Your task to perform on an android device: clear history in the chrome app Image 0: 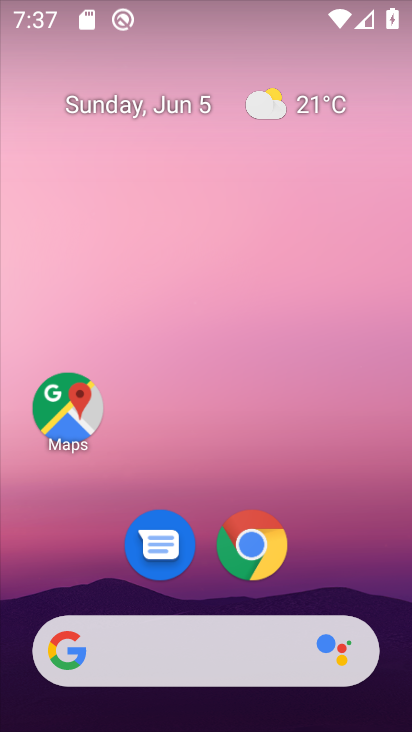
Step 0: drag from (216, 634) to (224, 225)
Your task to perform on an android device: clear history in the chrome app Image 1: 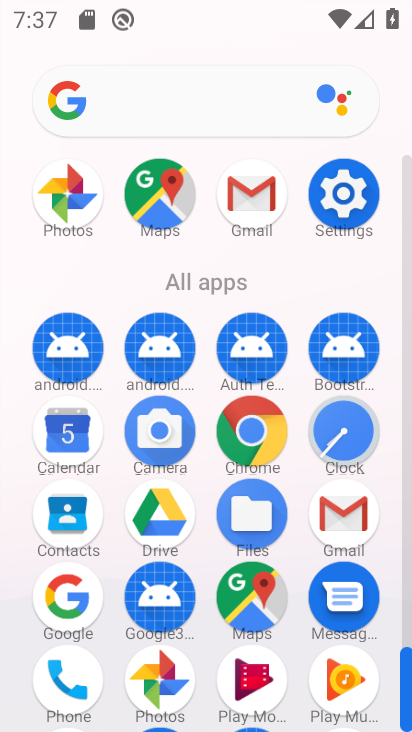
Step 1: drag from (256, 474) to (273, 275)
Your task to perform on an android device: clear history in the chrome app Image 2: 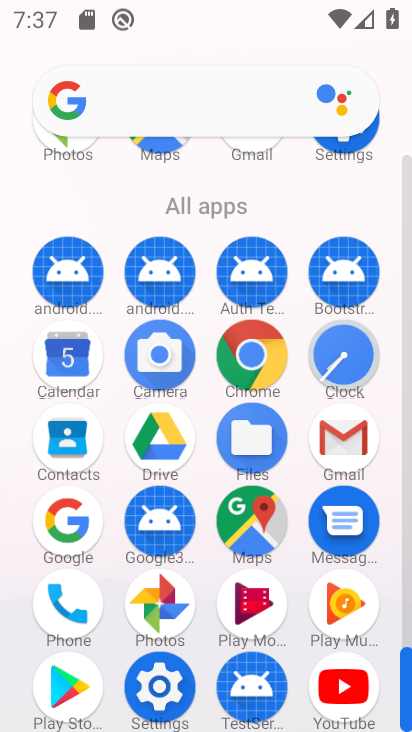
Step 2: click (262, 367)
Your task to perform on an android device: clear history in the chrome app Image 3: 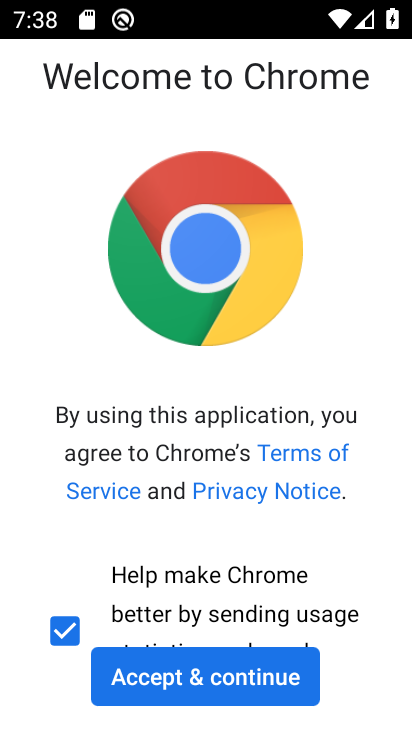
Step 3: click (234, 667)
Your task to perform on an android device: clear history in the chrome app Image 4: 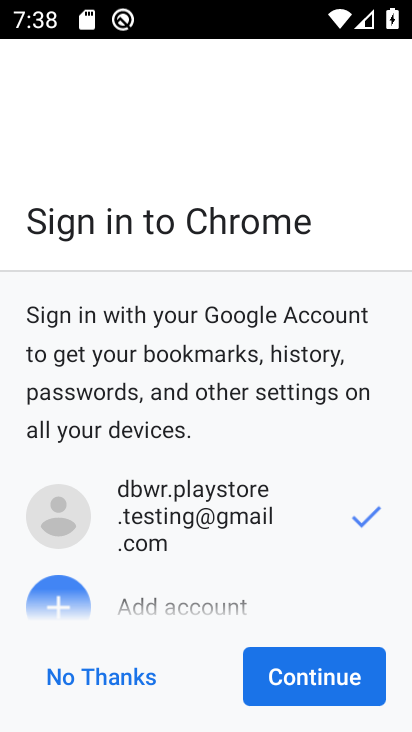
Step 4: click (326, 694)
Your task to perform on an android device: clear history in the chrome app Image 5: 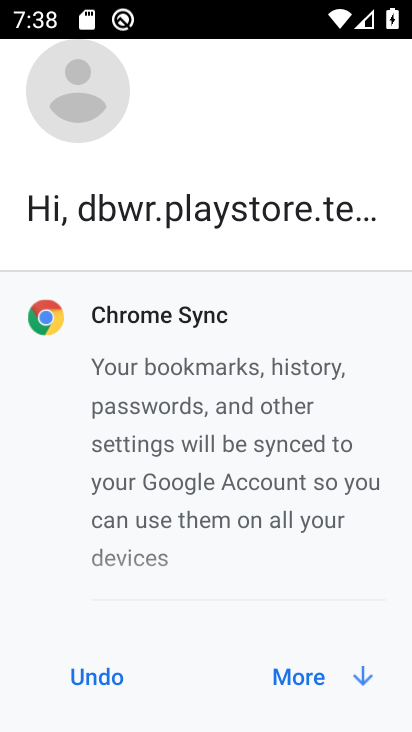
Step 5: click (326, 678)
Your task to perform on an android device: clear history in the chrome app Image 6: 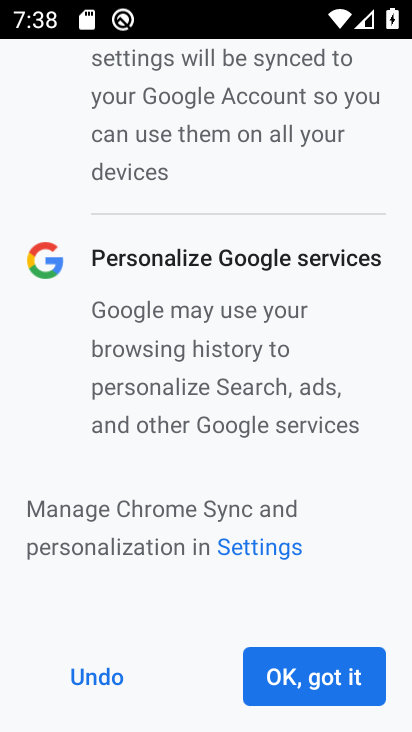
Step 6: click (362, 684)
Your task to perform on an android device: clear history in the chrome app Image 7: 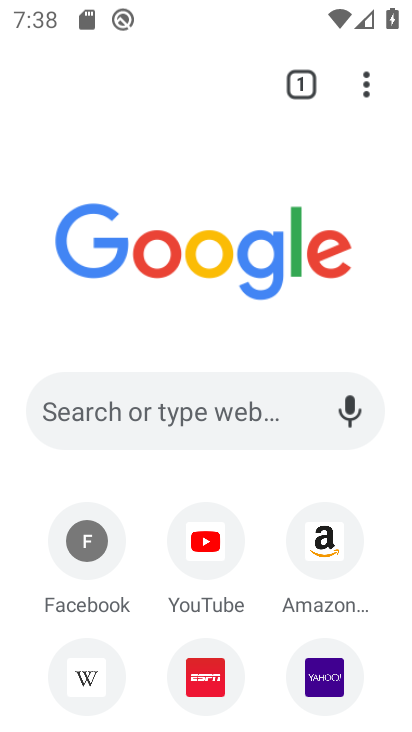
Step 7: click (371, 95)
Your task to perform on an android device: clear history in the chrome app Image 8: 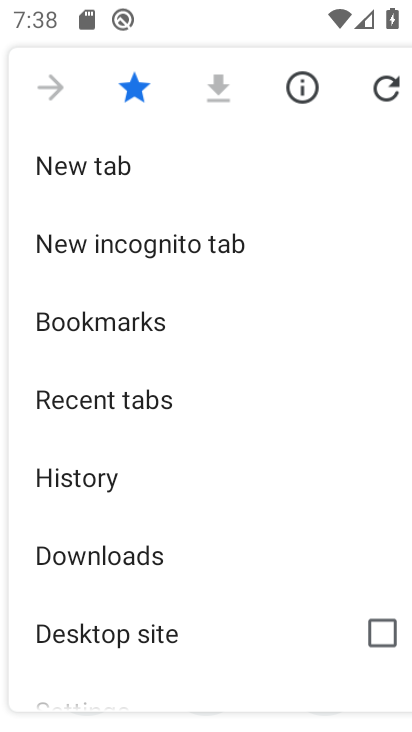
Step 8: click (125, 474)
Your task to perform on an android device: clear history in the chrome app Image 9: 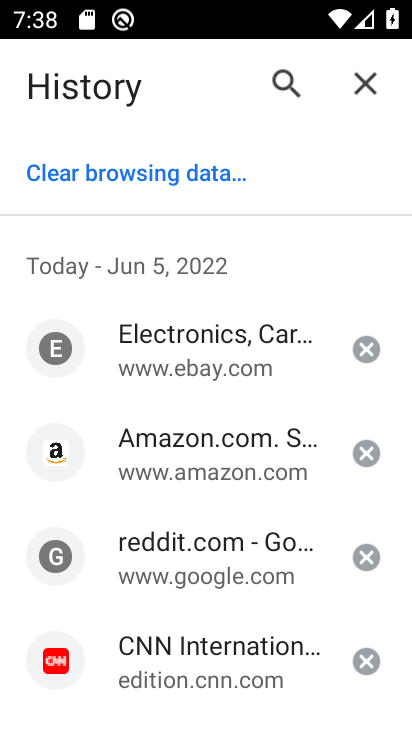
Step 9: click (82, 175)
Your task to perform on an android device: clear history in the chrome app Image 10: 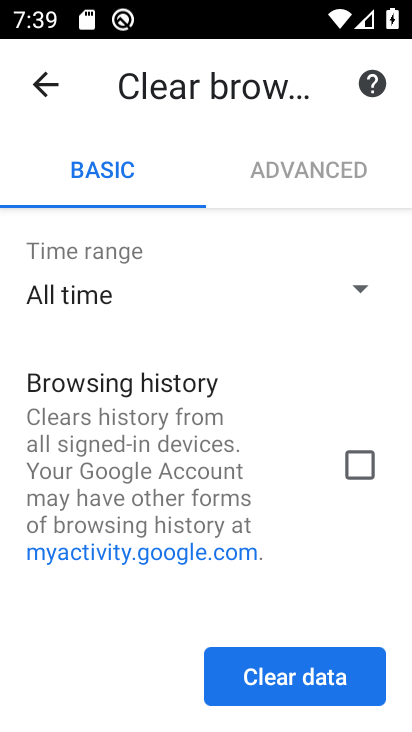
Step 10: click (358, 472)
Your task to perform on an android device: clear history in the chrome app Image 11: 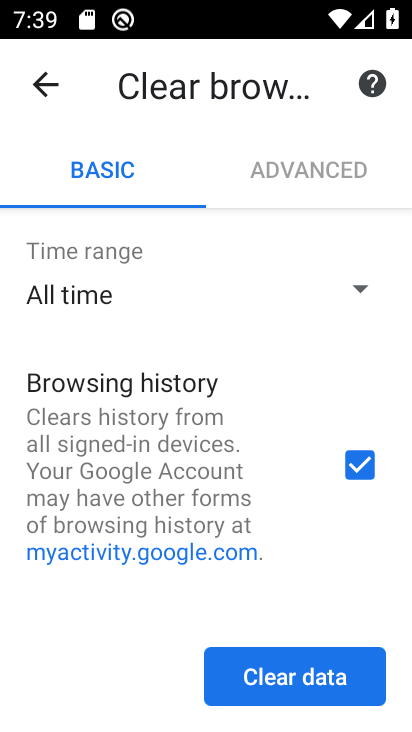
Step 11: click (328, 680)
Your task to perform on an android device: clear history in the chrome app Image 12: 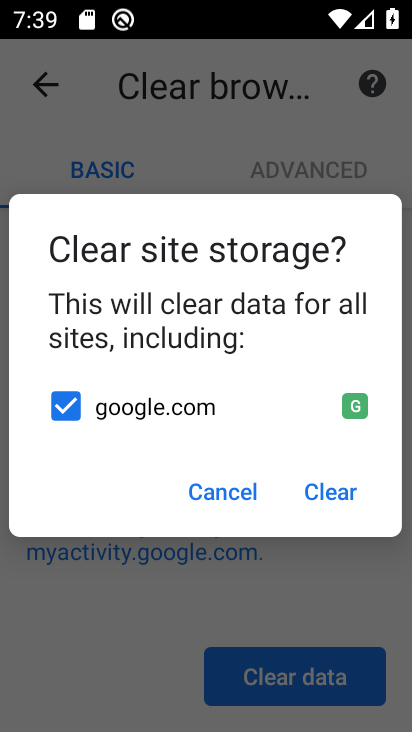
Step 12: click (316, 483)
Your task to perform on an android device: clear history in the chrome app Image 13: 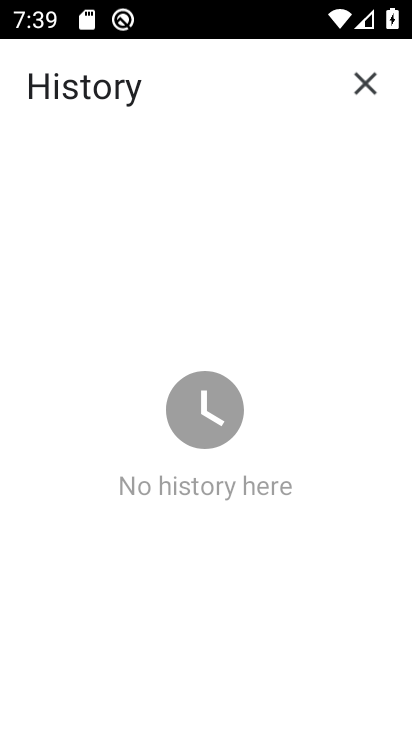
Step 13: task complete